Your task to perform on an android device: check out phone information Image 0: 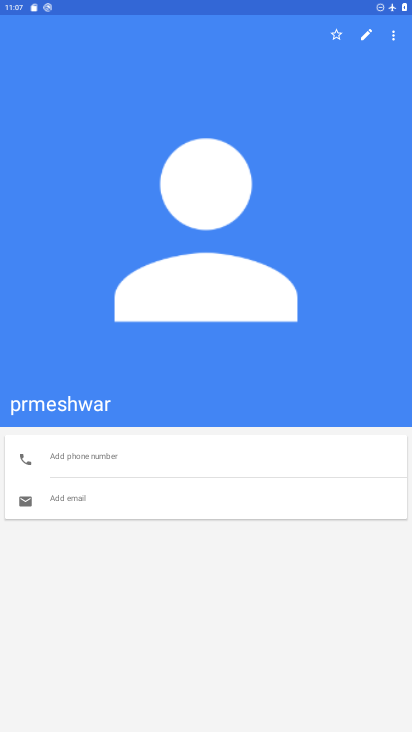
Step 0: press home button
Your task to perform on an android device: check out phone information Image 1: 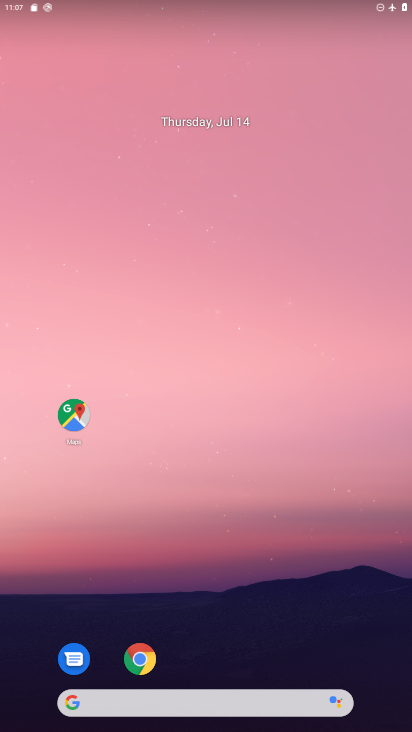
Step 1: drag from (186, 609) to (214, 170)
Your task to perform on an android device: check out phone information Image 2: 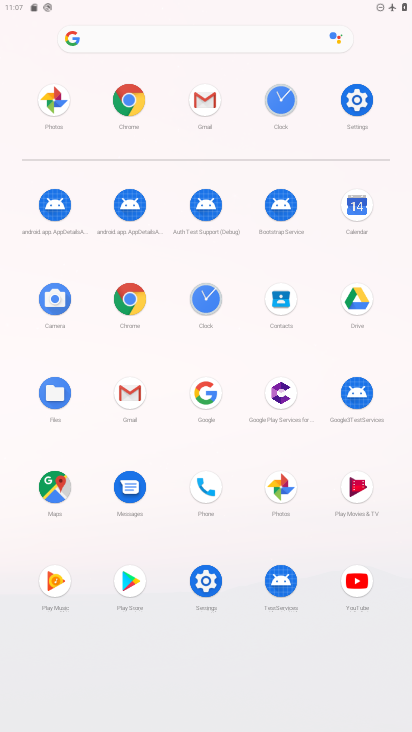
Step 2: click (202, 495)
Your task to perform on an android device: check out phone information Image 3: 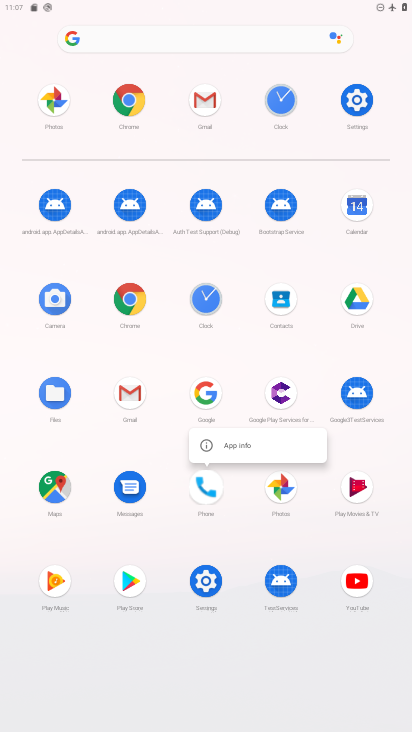
Step 3: click (229, 444)
Your task to perform on an android device: check out phone information Image 4: 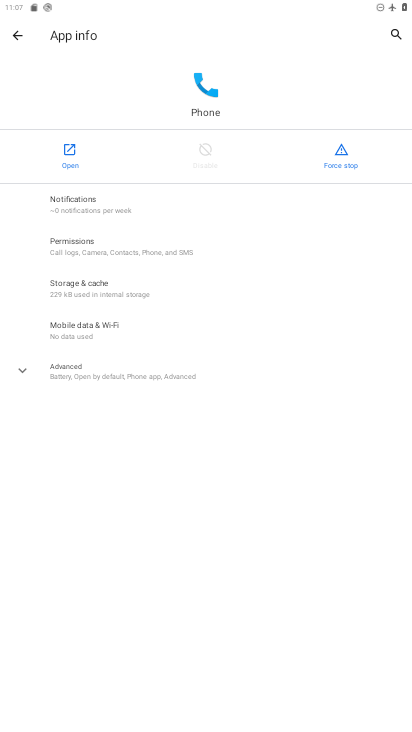
Step 4: click (61, 384)
Your task to perform on an android device: check out phone information Image 5: 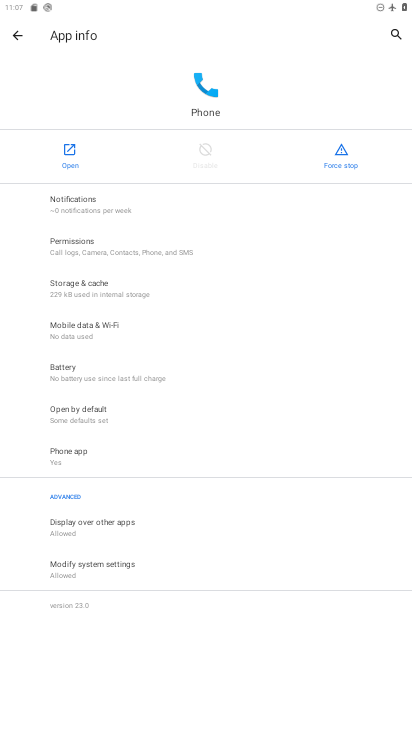
Step 5: task complete